Your task to perform on an android device: manage bookmarks in the chrome app Image 0: 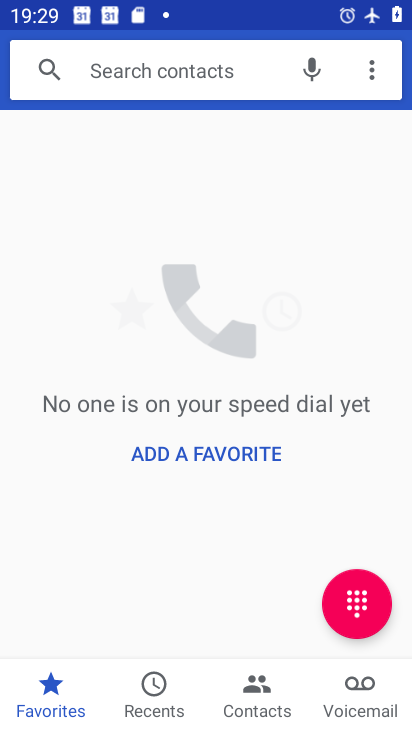
Step 0: press home button
Your task to perform on an android device: manage bookmarks in the chrome app Image 1: 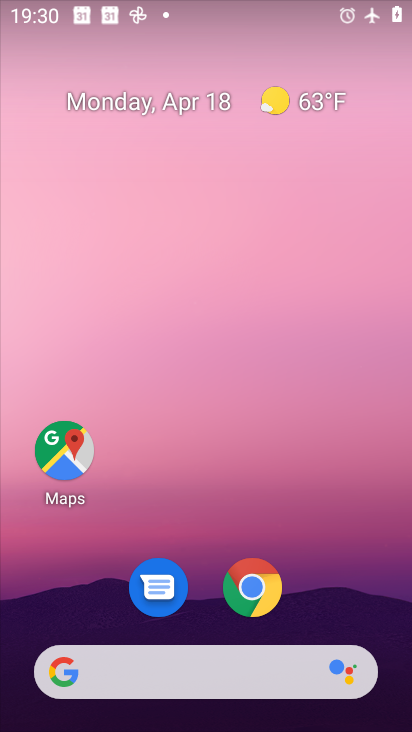
Step 1: click (262, 578)
Your task to perform on an android device: manage bookmarks in the chrome app Image 2: 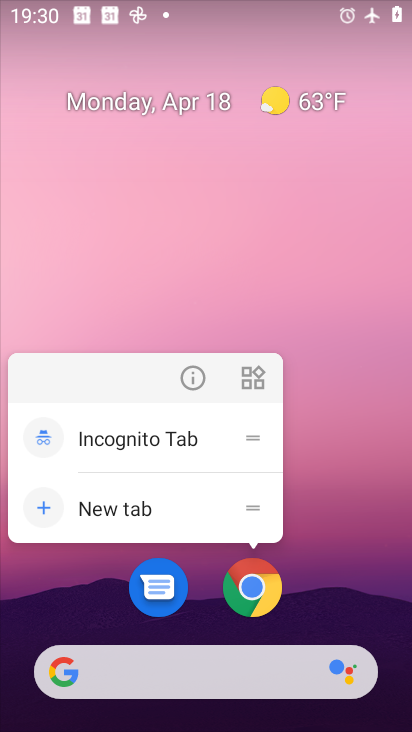
Step 2: click (264, 606)
Your task to perform on an android device: manage bookmarks in the chrome app Image 3: 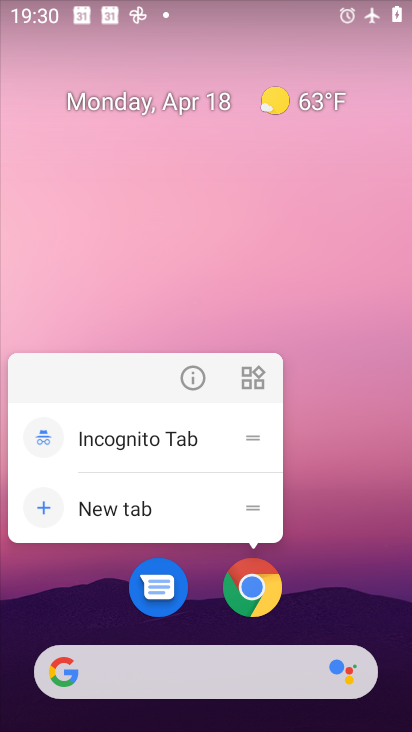
Step 3: click (264, 606)
Your task to perform on an android device: manage bookmarks in the chrome app Image 4: 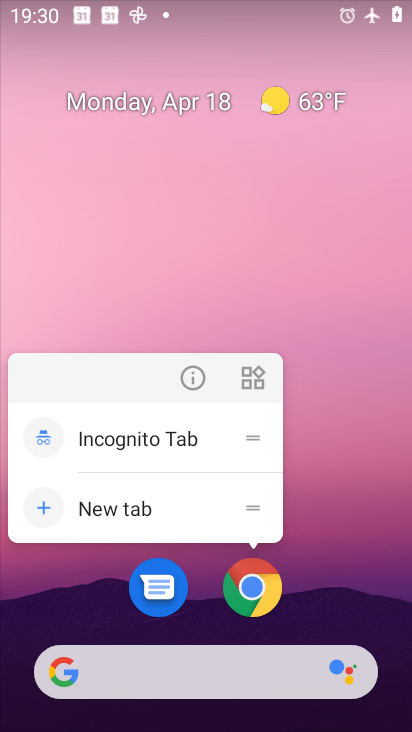
Step 4: click (263, 593)
Your task to perform on an android device: manage bookmarks in the chrome app Image 5: 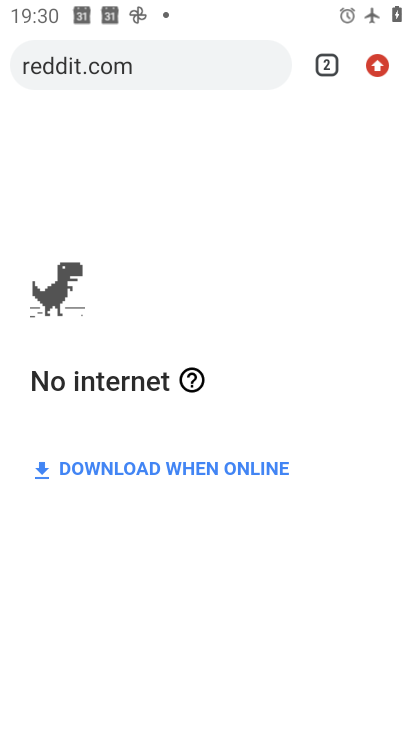
Step 5: click (381, 72)
Your task to perform on an android device: manage bookmarks in the chrome app Image 6: 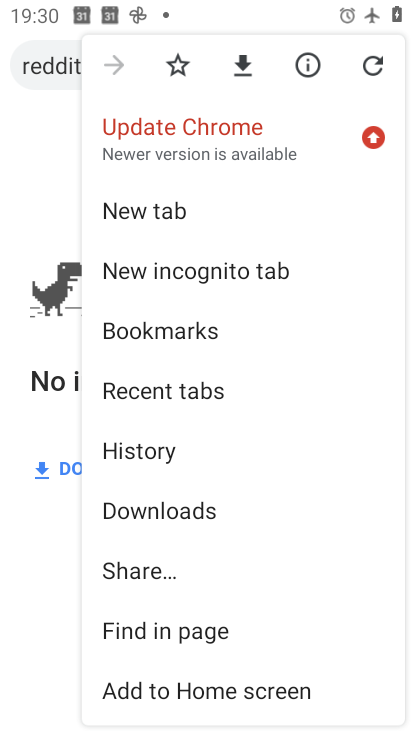
Step 6: click (256, 339)
Your task to perform on an android device: manage bookmarks in the chrome app Image 7: 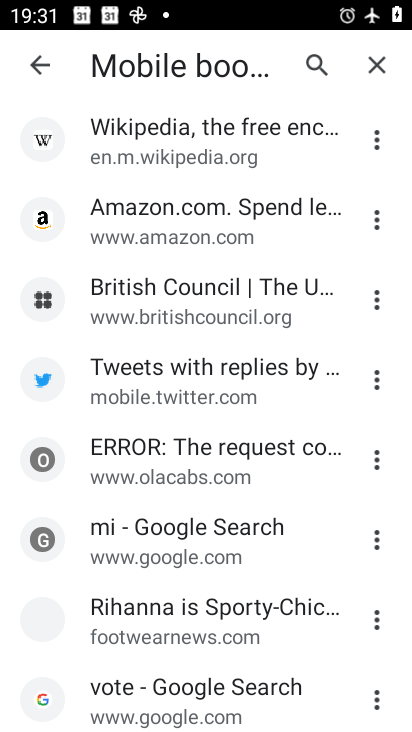
Step 7: click (371, 291)
Your task to perform on an android device: manage bookmarks in the chrome app Image 8: 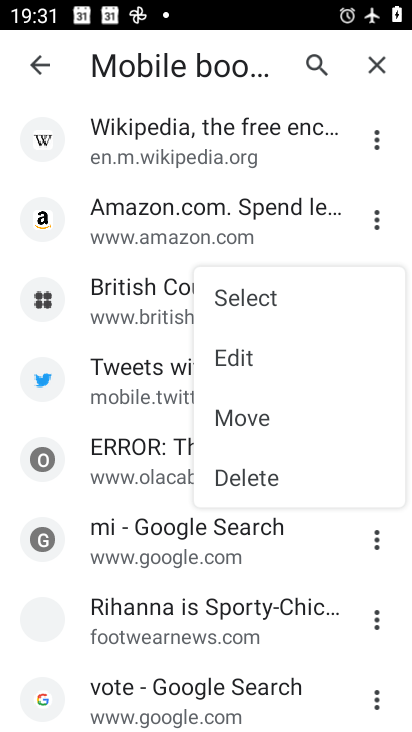
Step 8: click (290, 487)
Your task to perform on an android device: manage bookmarks in the chrome app Image 9: 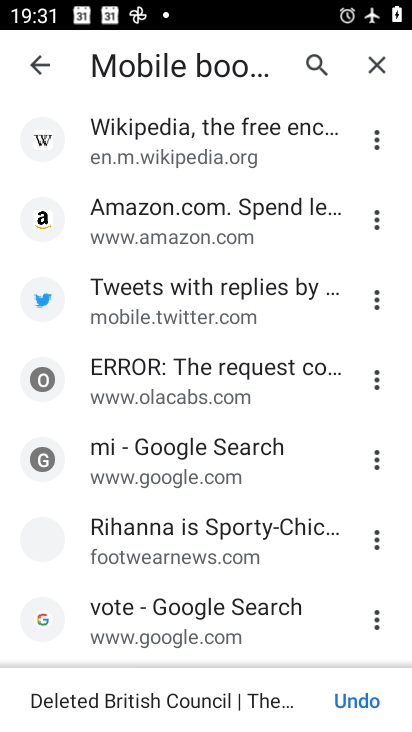
Step 9: task complete